Your task to perform on an android device: Open calendar and show me the second week of next month Image 0: 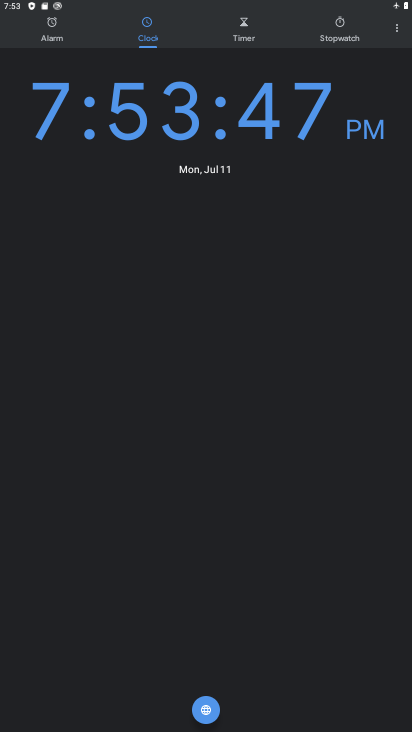
Step 0: press home button
Your task to perform on an android device: Open calendar and show me the second week of next month Image 1: 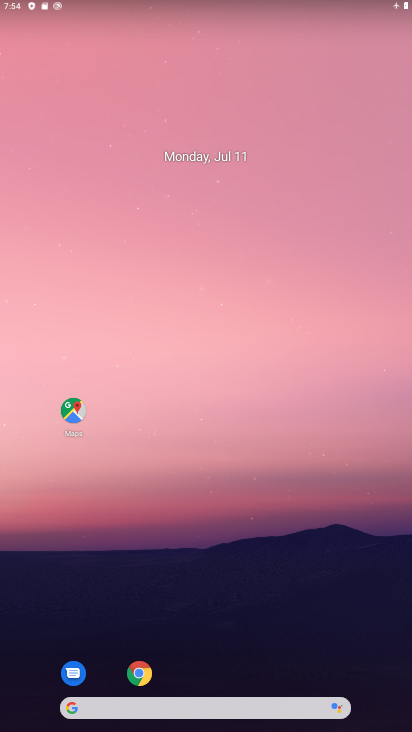
Step 1: drag from (242, 697) to (241, 255)
Your task to perform on an android device: Open calendar and show me the second week of next month Image 2: 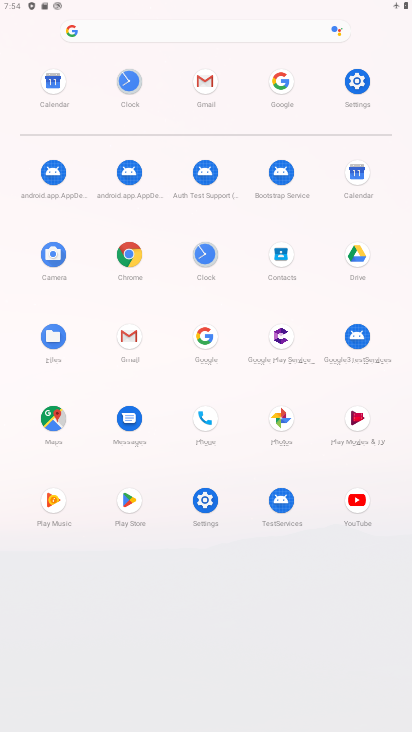
Step 2: click (210, 255)
Your task to perform on an android device: Open calendar and show me the second week of next month Image 3: 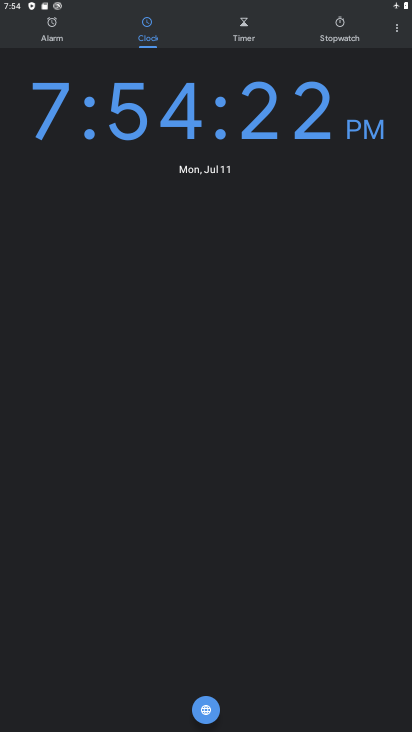
Step 3: click (398, 28)
Your task to perform on an android device: Open calendar and show me the second week of next month Image 4: 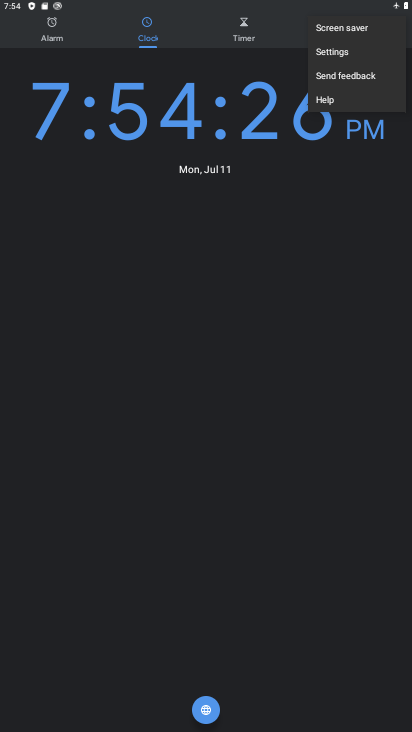
Step 4: click (339, 53)
Your task to perform on an android device: Open calendar and show me the second week of next month Image 5: 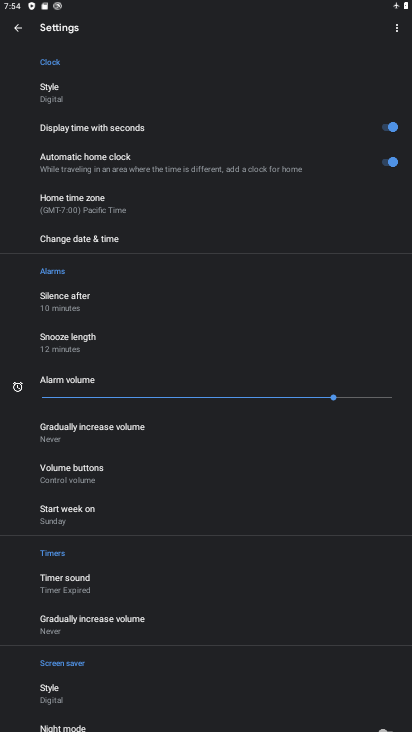
Step 5: task complete